Your task to perform on an android device: Open ESPN.com Image 0: 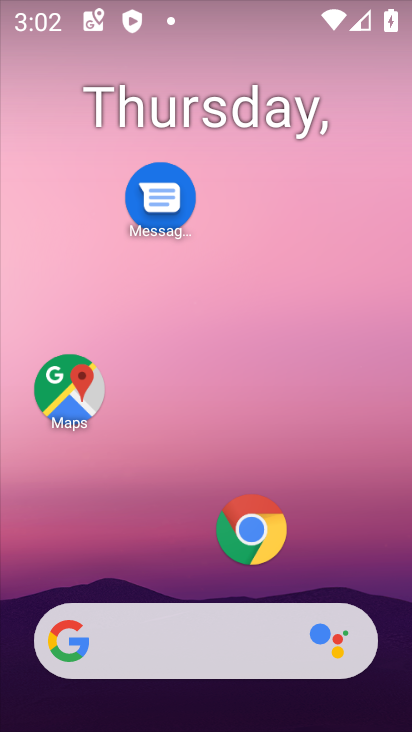
Step 0: click (261, 532)
Your task to perform on an android device: Open ESPN.com Image 1: 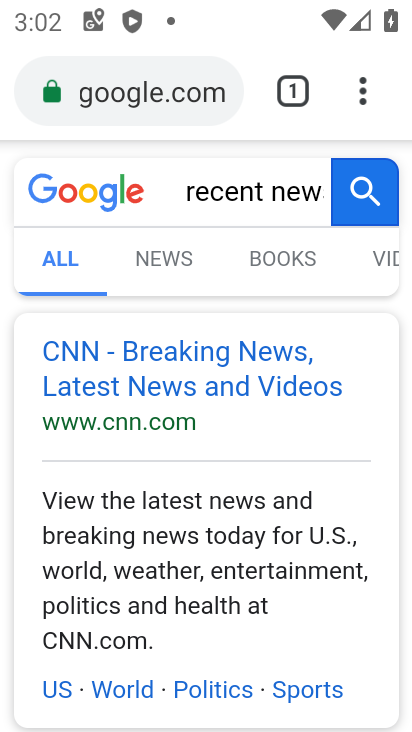
Step 1: click (131, 103)
Your task to perform on an android device: Open ESPN.com Image 2: 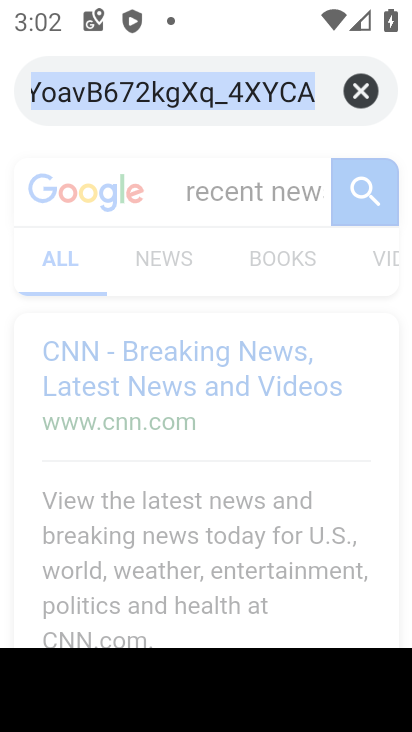
Step 2: type "ESPN.com"
Your task to perform on an android device: Open ESPN.com Image 3: 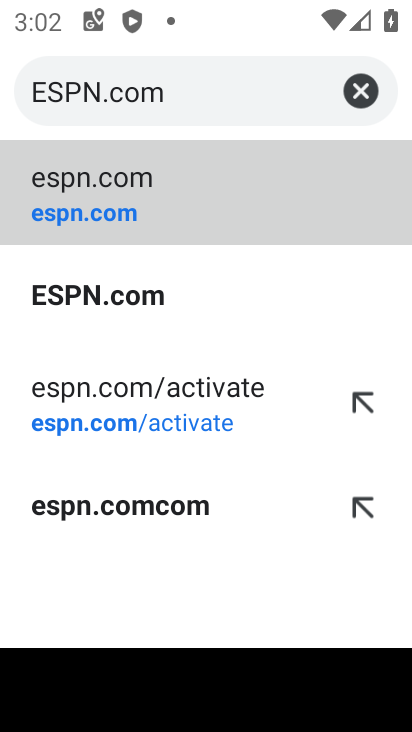
Step 3: click (128, 309)
Your task to perform on an android device: Open ESPN.com Image 4: 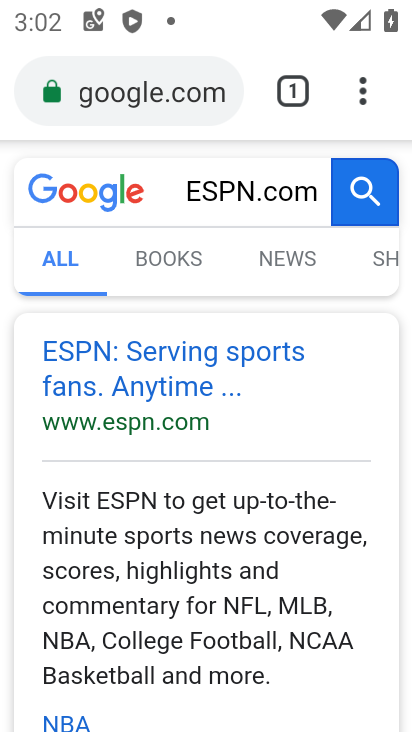
Step 4: task complete